Your task to perform on an android device: When is my next meeting? Image 0: 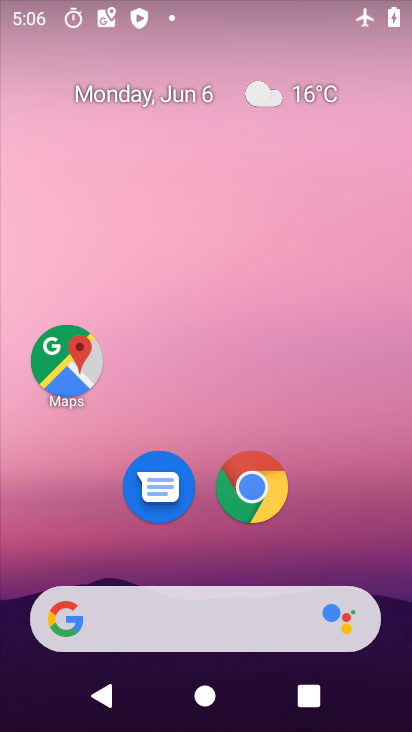
Step 0: drag from (359, 531) to (323, 55)
Your task to perform on an android device: When is my next meeting? Image 1: 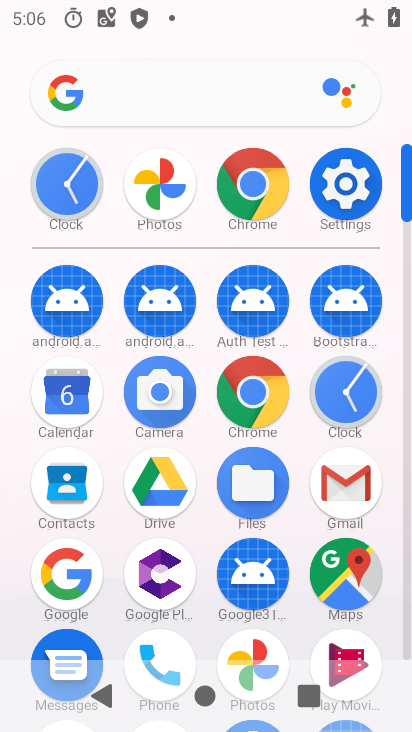
Step 1: drag from (357, 398) to (377, 180)
Your task to perform on an android device: When is my next meeting? Image 2: 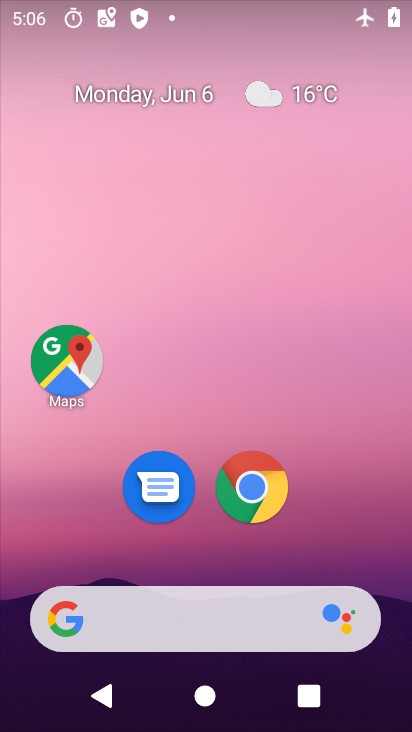
Step 2: drag from (324, 506) to (336, 58)
Your task to perform on an android device: When is my next meeting? Image 3: 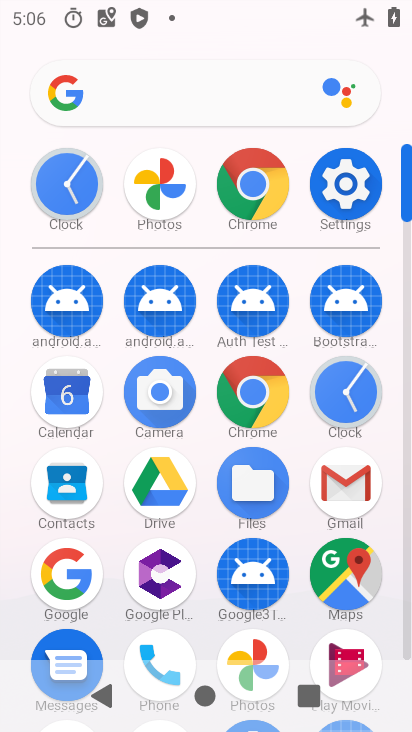
Step 3: click (74, 416)
Your task to perform on an android device: When is my next meeting? Image 4: 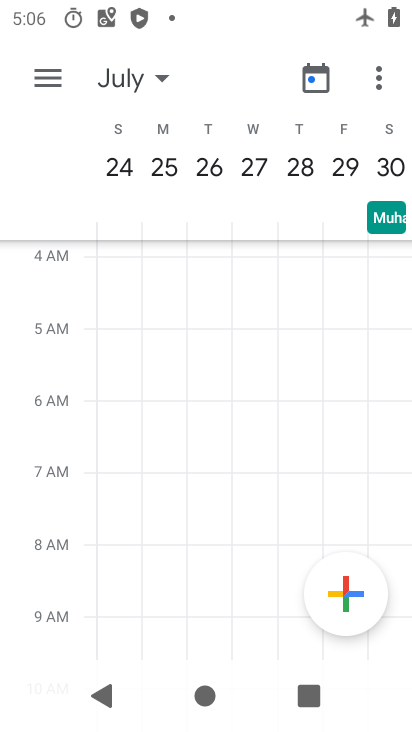
Step 4: click (149, 87)
Your task to perform on an android device: When is my next meeting? Image 5: 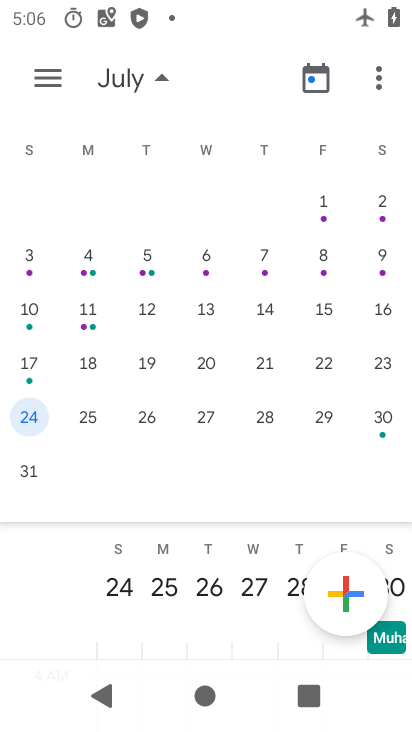
Step 5: drag from (21, 325) to (361, 336)
Your task to perform on an android device: When is my next meeting? Image 6: 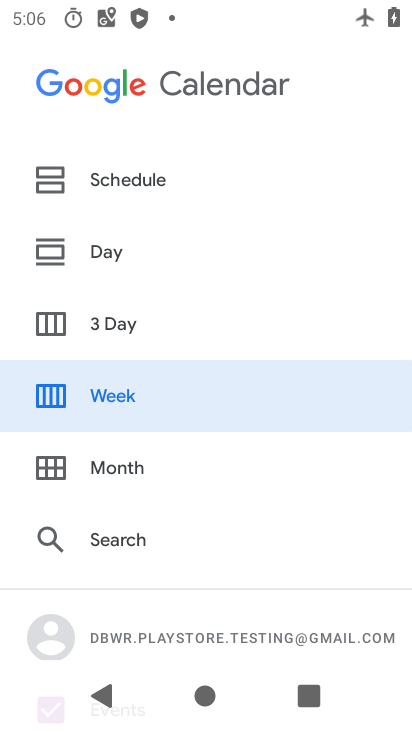
Step 6: drag from (365, 334) to (3, 363)
Your task to perform on an android device: When is my next meeting? Image 7: 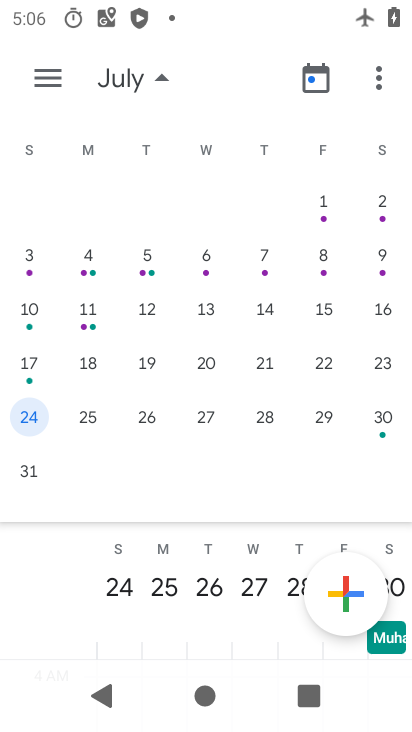
Step 7: drag from (108, 303) to (410, 300)
Your task to perform on an android device: When is my next meeting? Image 8: 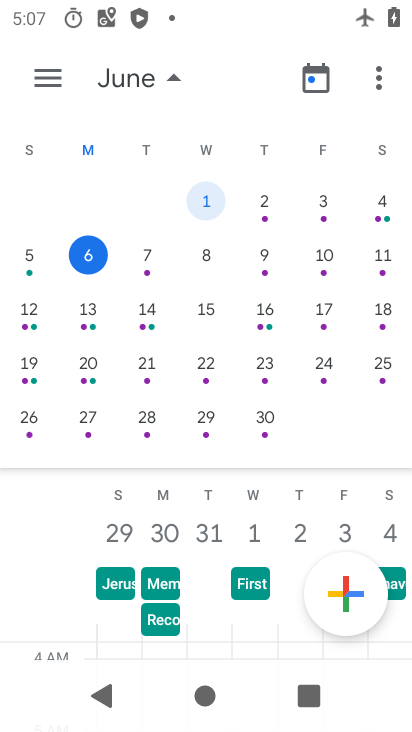
Step 8: click (84, 259)
Your task to perform on an android device: When is my next meeting? Image 9: 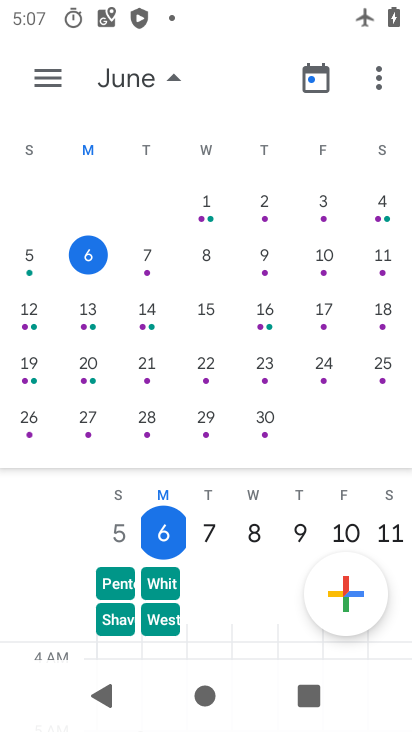
Step 9: task complete